Your task to perform on an android device: Open the calendar app, open the side menu, and click the "Day" option Image 0: 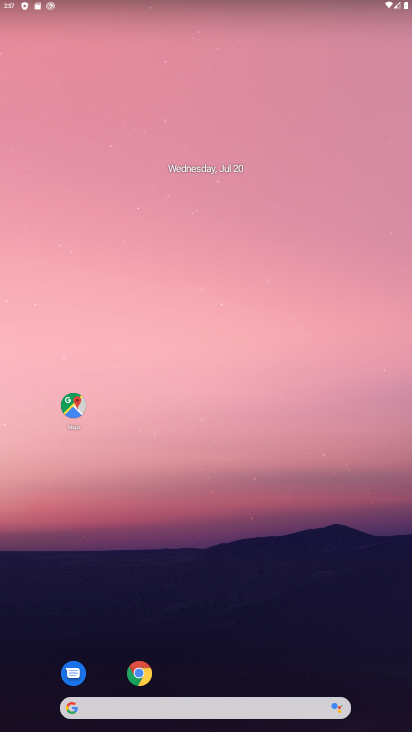
Step 0: drag from (284, 672) to (258, 110)
Your task to perform on an android device: Open the calendar app, open the side menu, and click the "Day" option Image 1: 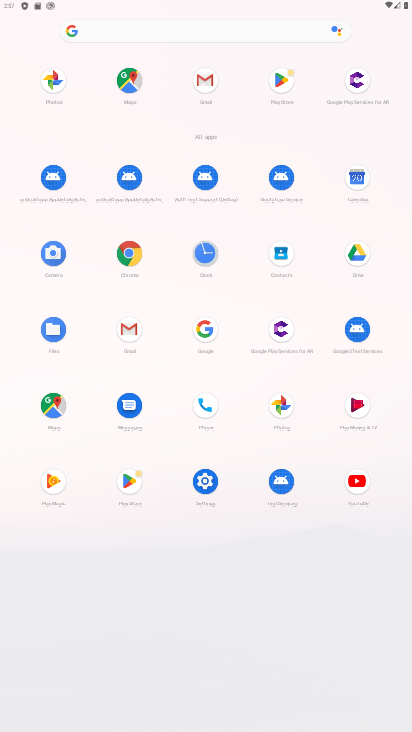
Step 1: click (362, 178)
Your task to perform on an android device: Open the calendar app, open the side menu, and click the "Day" option Image 2: 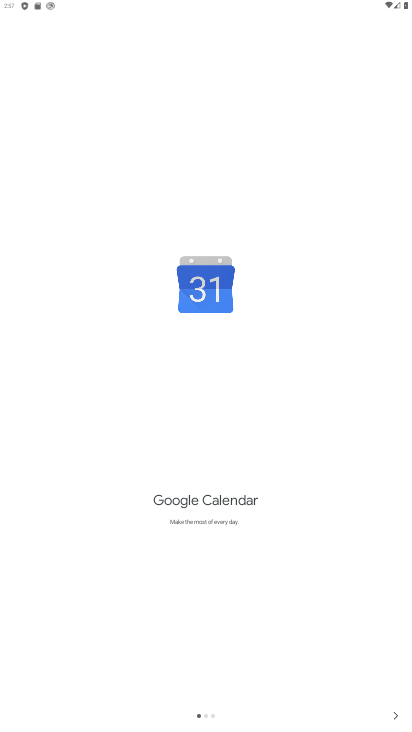
Step 2: click (397, 719)
Your task to perform on an android device: Open the calendar app, open the side menu, and click the "Day" option Image 3: 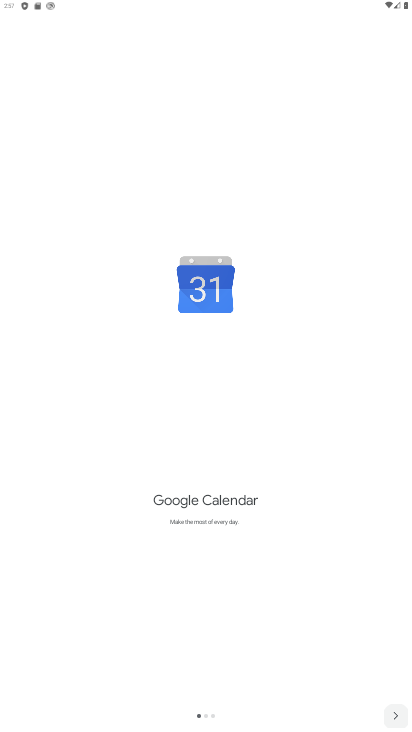
Step 3: click (393, 719)
Your task to perform on an android device: Open the calendar app, open the side menu, and click the "Day" option Image 4: 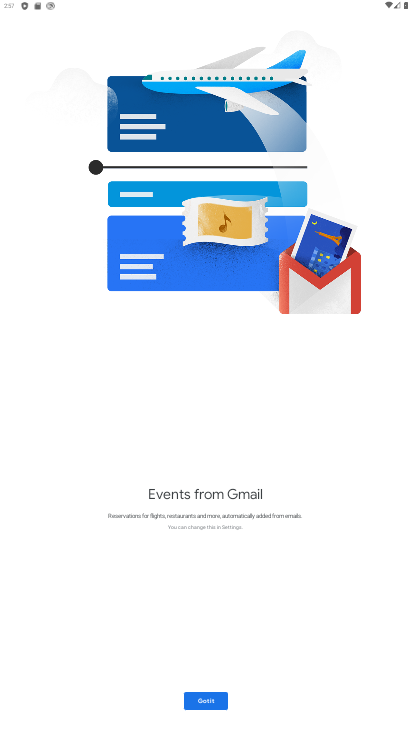
Step 4: click (208, 699)
Your task to perform on an android device: Open the calendar app, open the side menu, and click the "Day" option Image 5: 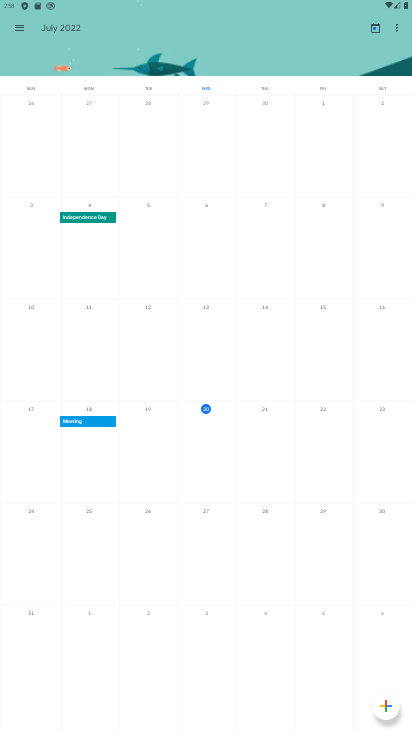
Step 5: click (14, 25)
Your task to perform on an android device: Open the calendar app, open the side menu, and click the "Day" option Image 6: 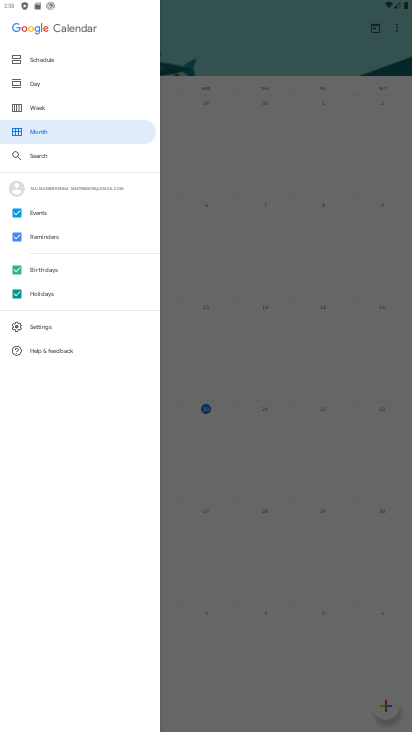
Step 6: click (27, 78)
Your task to perform on an android device: Open the calendar app, open the side menu, and click the "Day" option Image 7: 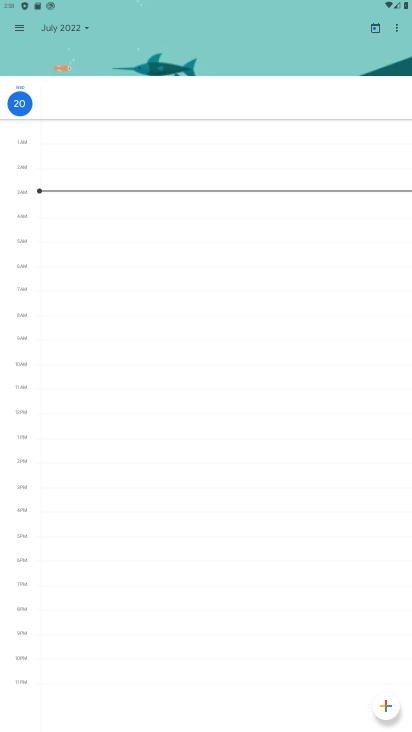
Step 7: task complete